Your task to perform on an android device: delete location history Image 0: 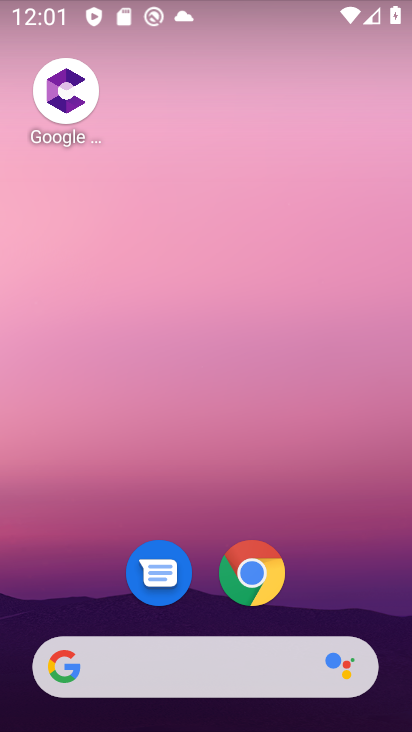
Step 0: drag from (206, 617) to (167, 163)
Your task to perform on an android device: delete location history Image 1: 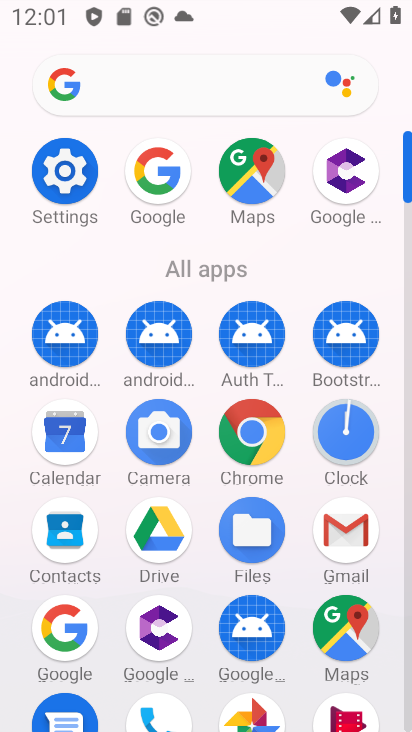
Step 1: click (243, 179)
Your task to perform on an android device: delete location history Image 2: 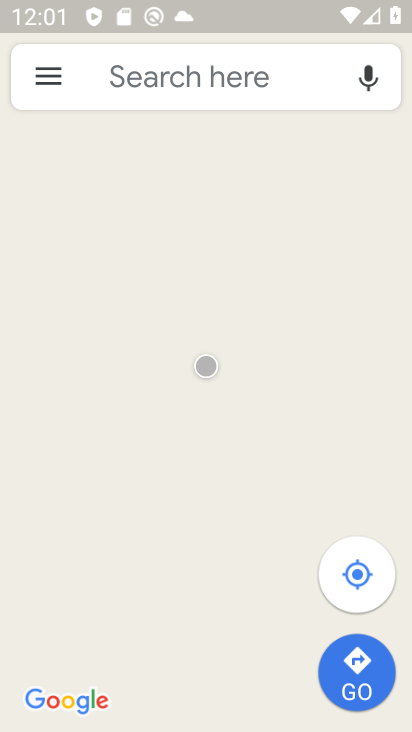
Step 2: click (51, 76)
Your task to perform on an android device: delete location history Image 3: 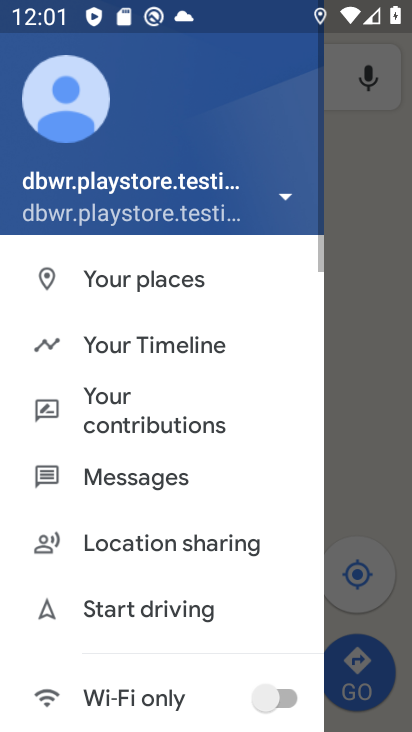
Step 3: click (153, 344)
Your task to perform on an android device: delete location history Image 4: 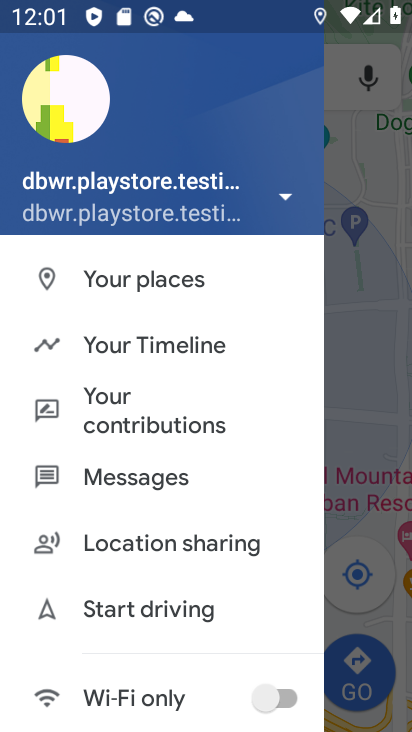
Step 4: click (153, 344)
Your task to perform on an android device: delete location history Image 5: 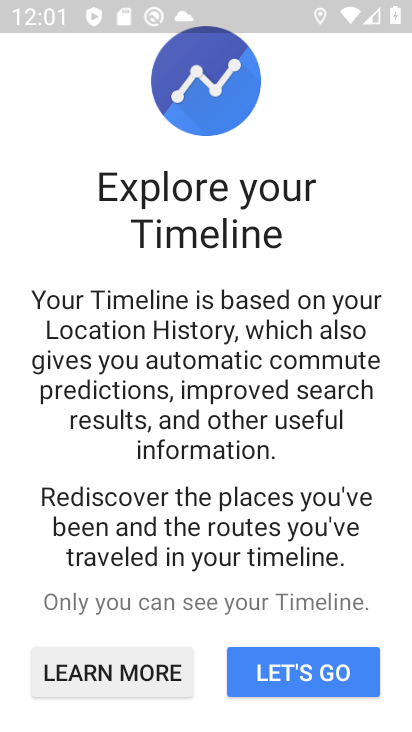
Step 5: click (305, 678)
Your task to perform on an android device: delete location history Image 6: 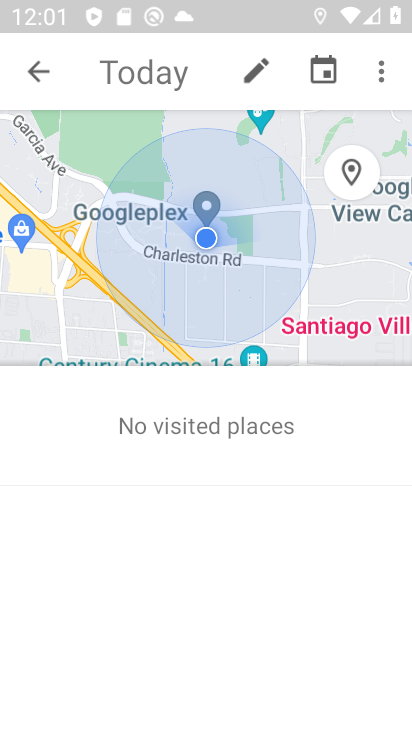
Step 6: click (385, 80)
Your task to perform on an android device: delete location history Image 7: 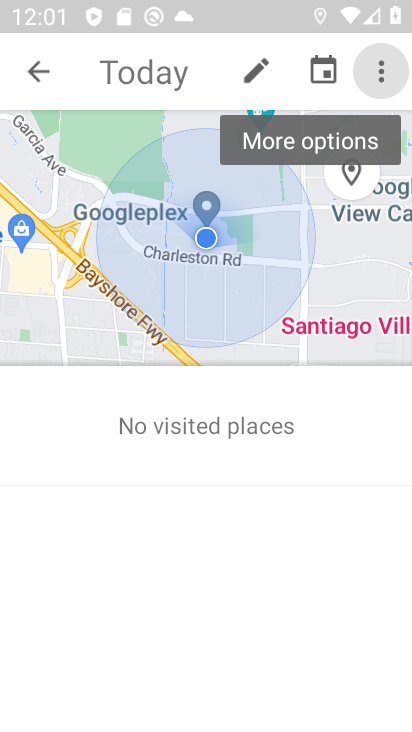
Step 7: click (385, 80)
Your task to perform on an android device: delete location history Image 8: 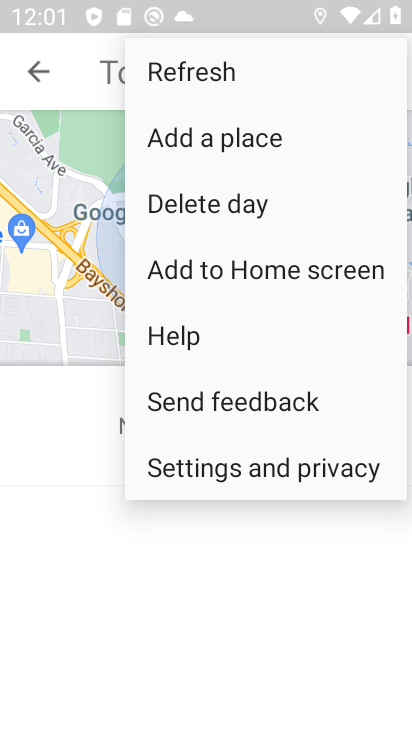
Step 8: click (233, 473)
Your task to perform on an android device: delete location history Image 9: 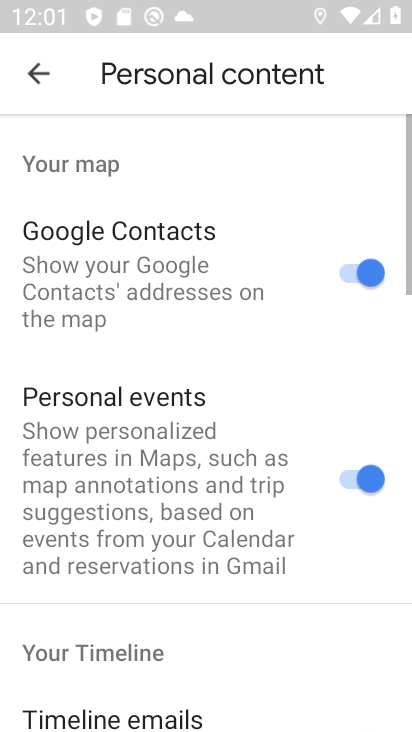
Step 9: drag from (283, 626) to (245, 136)
Your task to perform on an android device: delete location history Image 10: 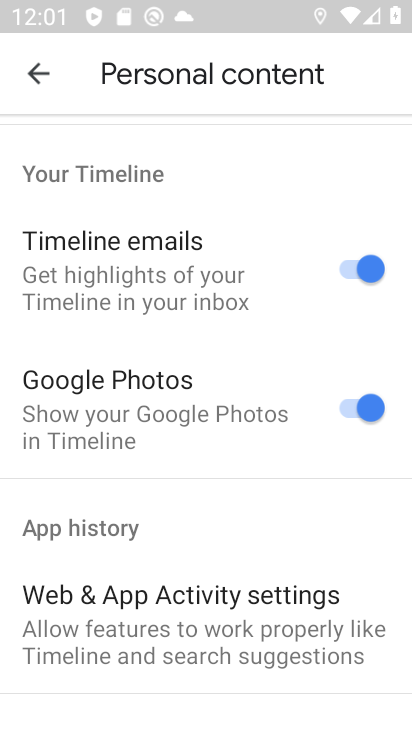
Step 10: drag from (270, 529) to (248, 130)
Your task to perform on an android device: delete location history Image 11: 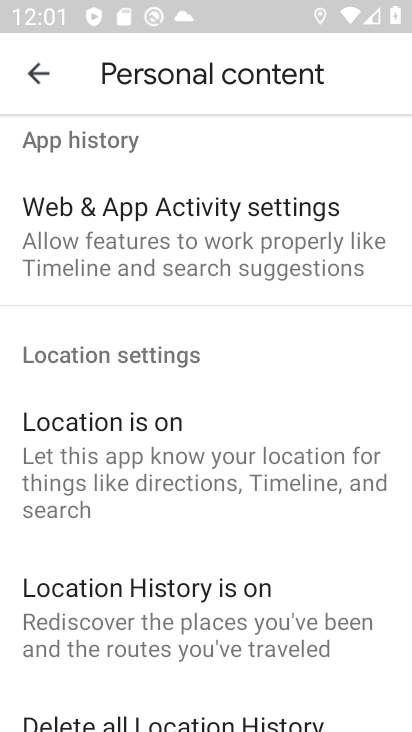
Step 11: drag from (264, 545) to (259, 95)
Your task to perform on an android device: delete location history Image 12: 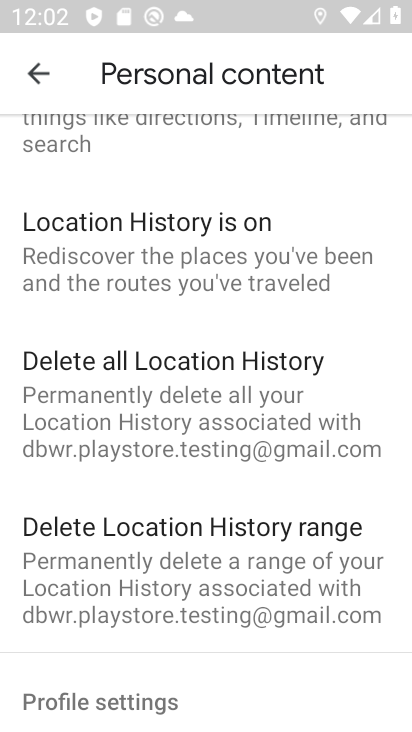
Step 12: click (193, 370)
Your task to perform on an android device: delete location history Image 13: 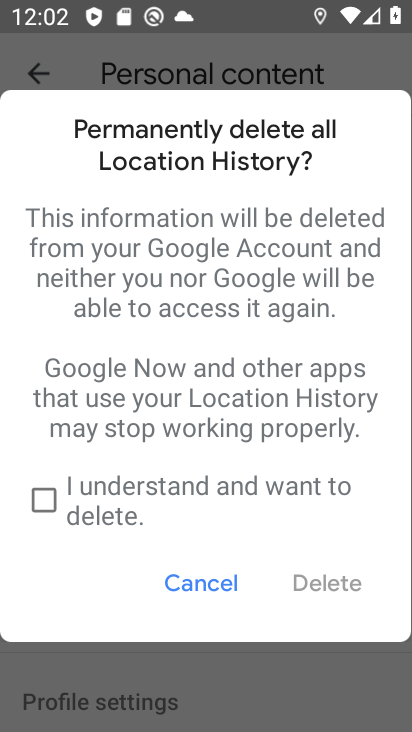
Step 13: click (34, 505)
Your task to perform on an android device: delete location history Image 14: 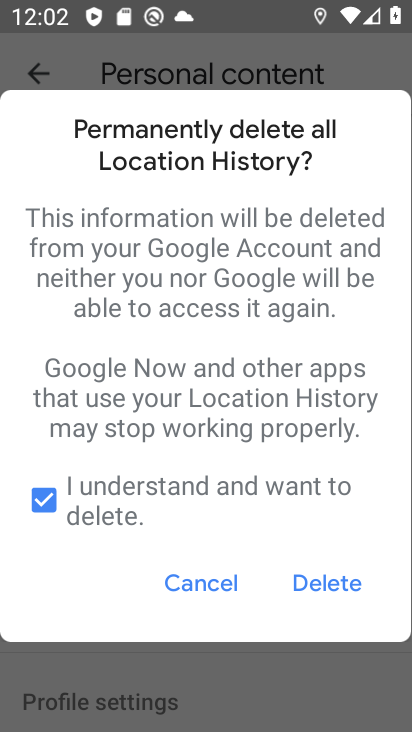
Step 14: click (326, 576)
Your task to perform on an android device: delete location history Image 15: 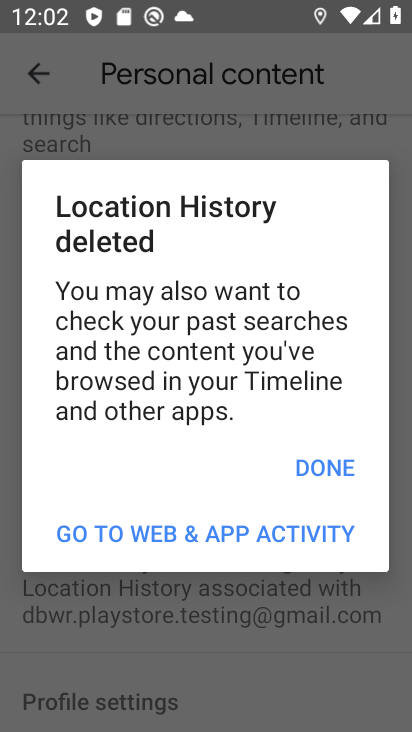
Step 15: click (314, 474)
Your task to perform on an android device: delete location history Image 16: 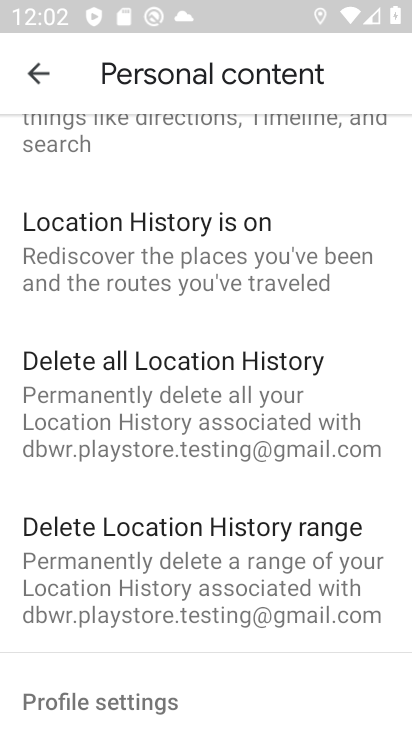
Step 16: task complete